Your task to perform on an android device: change alarm snooze length Image 0: 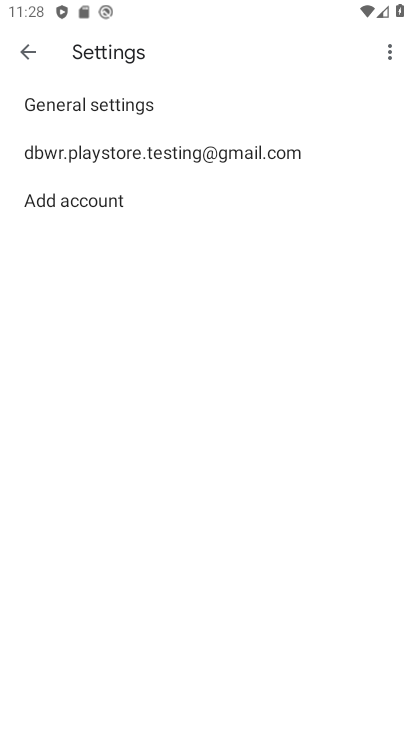
Step 0: press home button
Your task to perform on an android device: change alarm snooze length Image 1: 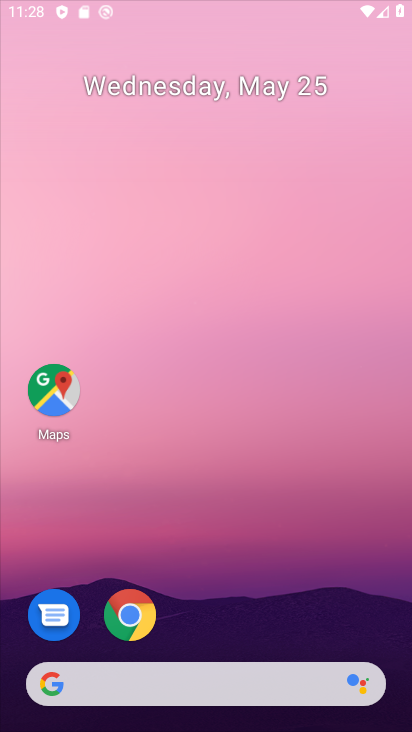
Step 1: drag from (358, 626) to (296, 99)
Your task to perform on an android device: change alarm snooze length Image 2: 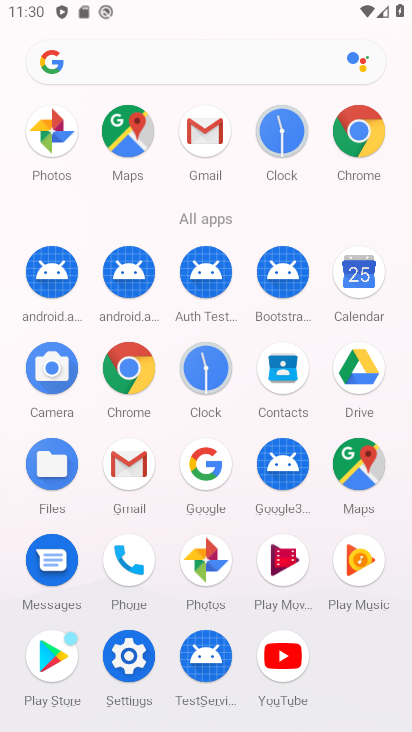
Step 2: click (204, 378)
Your task to perform on an android device: change alarm snooze length Image 3: 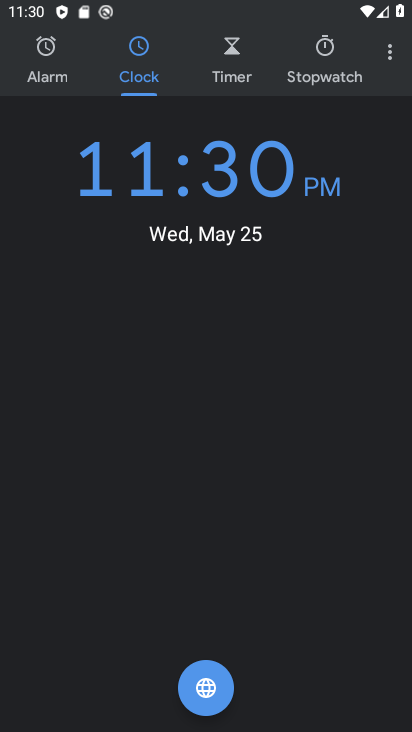
Step 3: click (391, 50)
Your task to perform on an android device: change alarm snooze length Image 4: 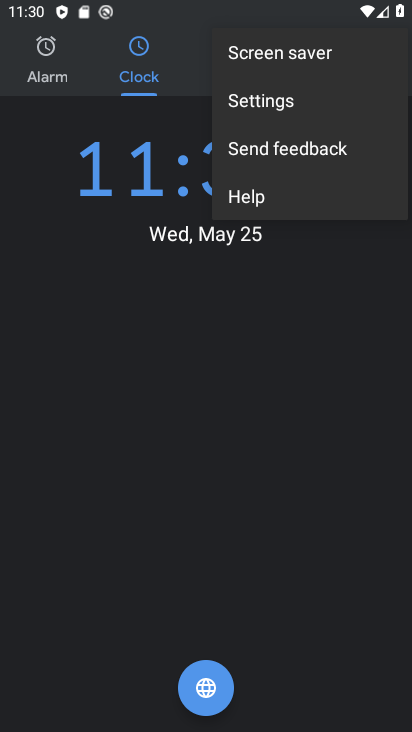
Step 4: click (303, 105)
Your task to perform on an android device: change alarm snooze length Image 5: 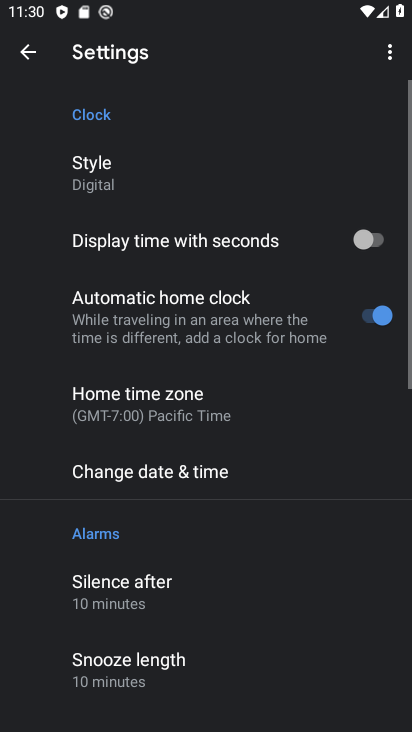
Step 5: press back button
Your task to perform on an android device: change alarm snooze length Image 6: 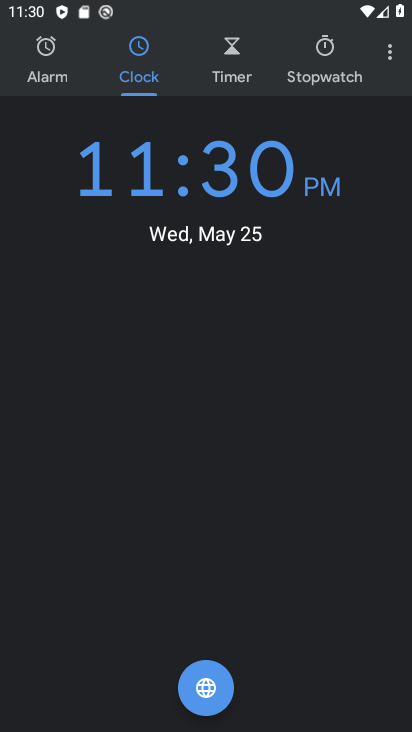
Step 6: click (41, 54)
Your task to perform on an android device: change alarm snooze length Image 7: 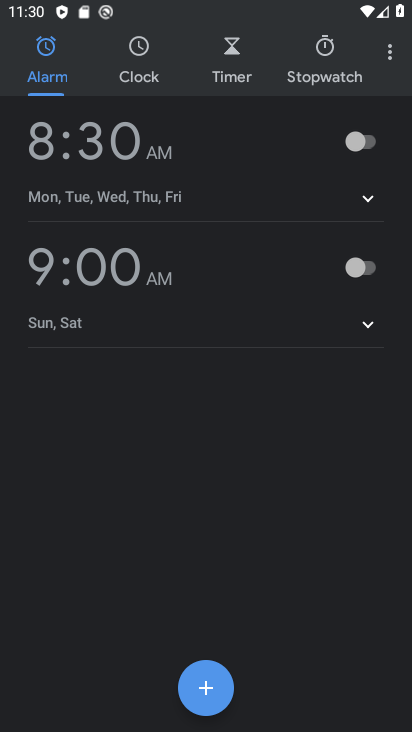
Step 7: click (393, 55)
Your task to perform on an android device: change alarm snooze length Image 8: 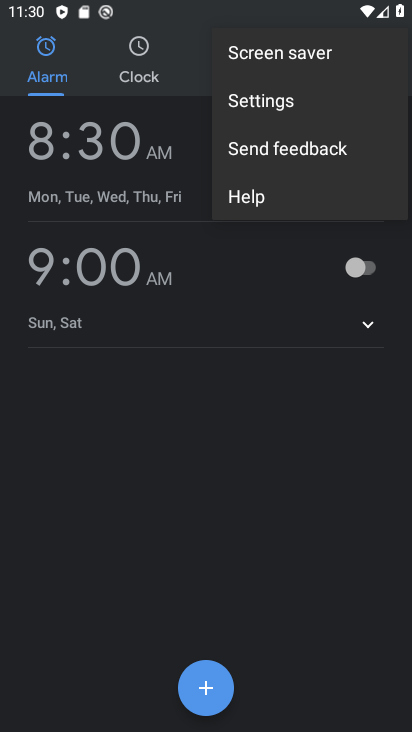
Step 8: click (279, 105)
Your task to perform on an android device: change alarm snooze length Image 9: 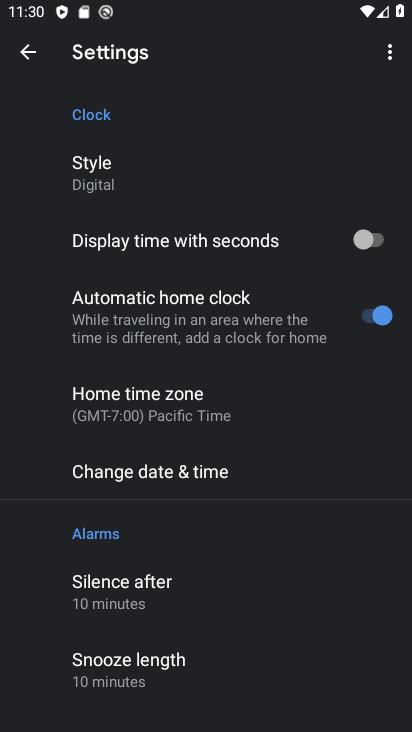
Step 9: click (164, 666)
Your task to perform on an android device: change alarm snooze length Image 10: 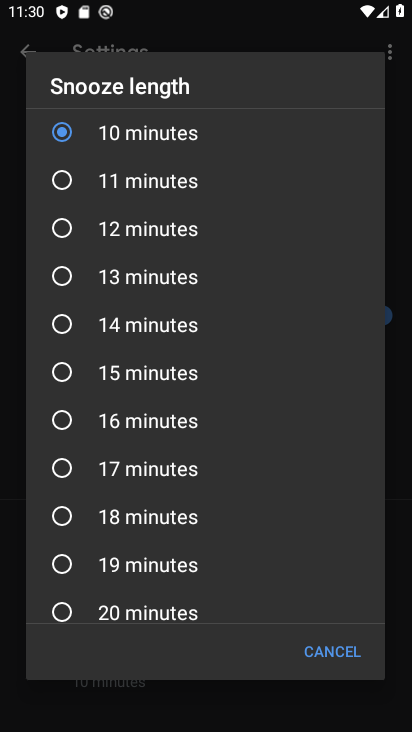
Step 10: click (73, 423)
Your task to perform on an android device: change alarm snooze length Image 11: 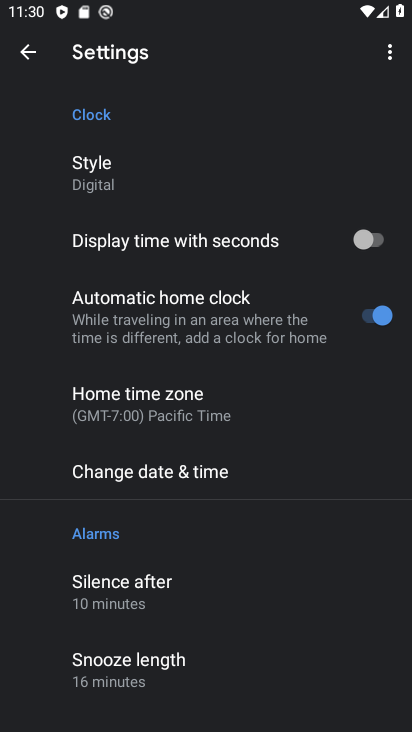
Step 11: task complete